Your task to perform on an android device: change the clock style Image 0: 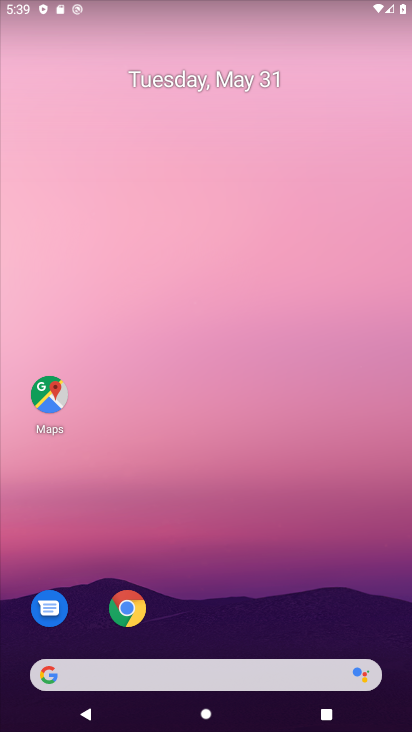
Step 0: drag from (244, 620) to (204, 147)
Your task to perform on an android device: change the clock style Image 1: 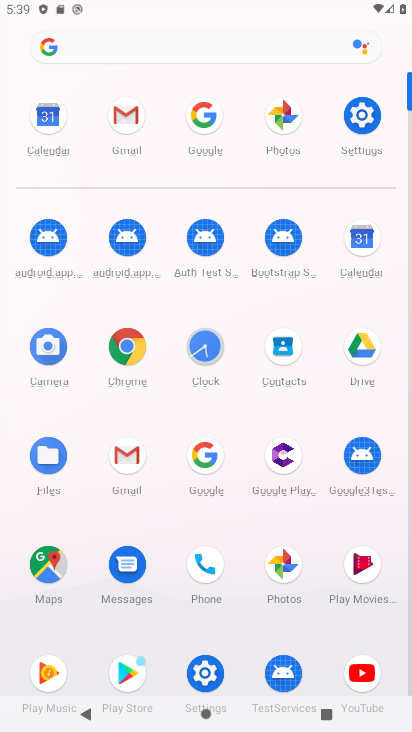
Step 1: click (206, 355)
Your task to perform on an android device: change the clock style Image 2: 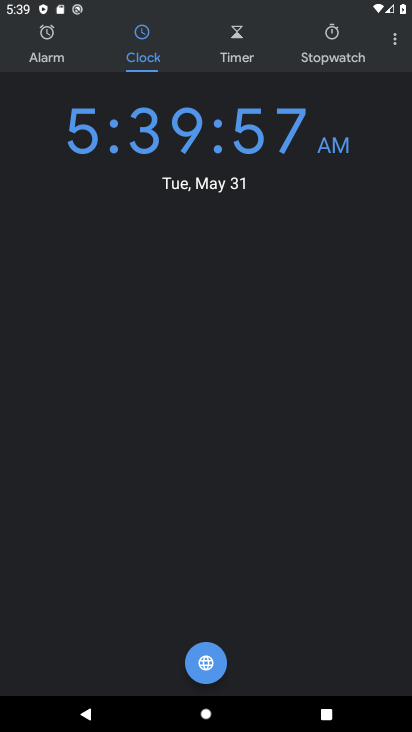
Step 2: click (401, 35)
Your task to perform on an android device: change the clock style Image 3: 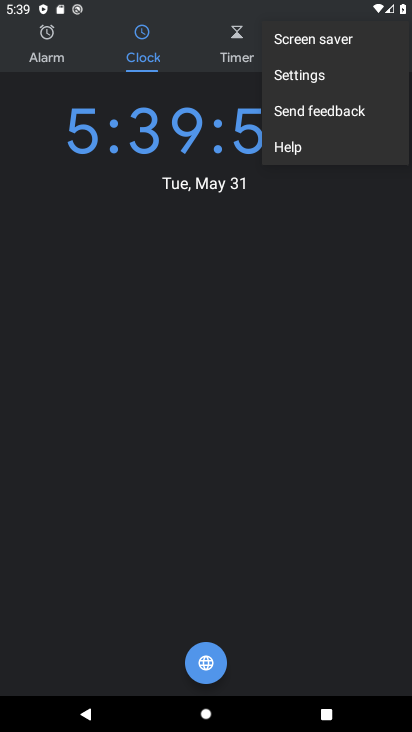
Step 3: click (301, 77)
Your task to perform on an android device: change the clock style Image 4: 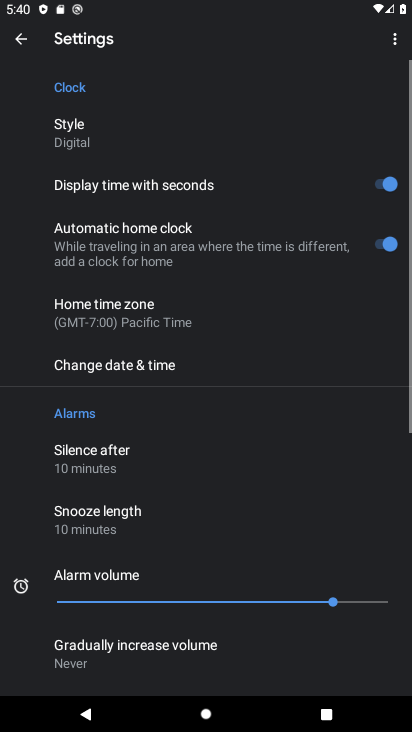
Step 4: click (87, 139)
Your task to perform on an android device: change the clock style Image 5: 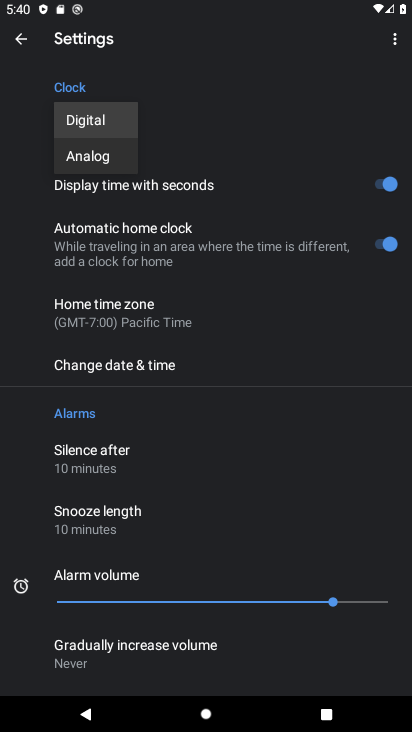
Step 5: click (93, 161)
Your task to perform on an android device: change the clock style Image 6: 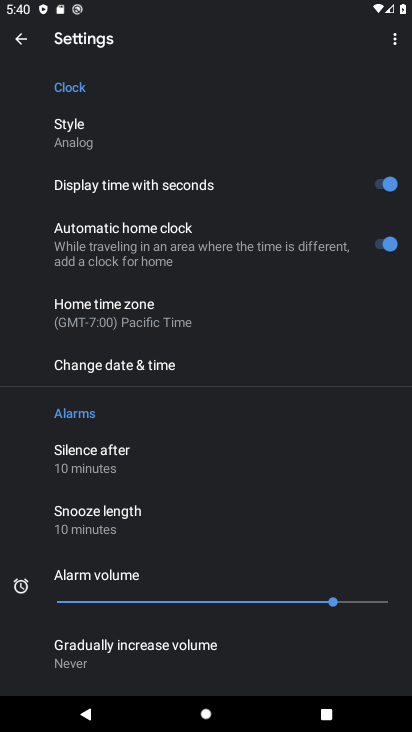
Step 6: task complete